Your task to perform on an android device: add a contact Image 0: 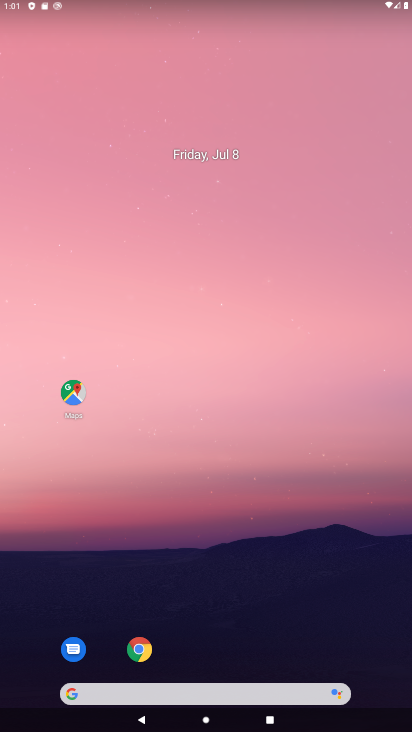
Step 0: drag from (298, 610) to (265, 151)
Your task to perform on an android device: add a contact Image 1: 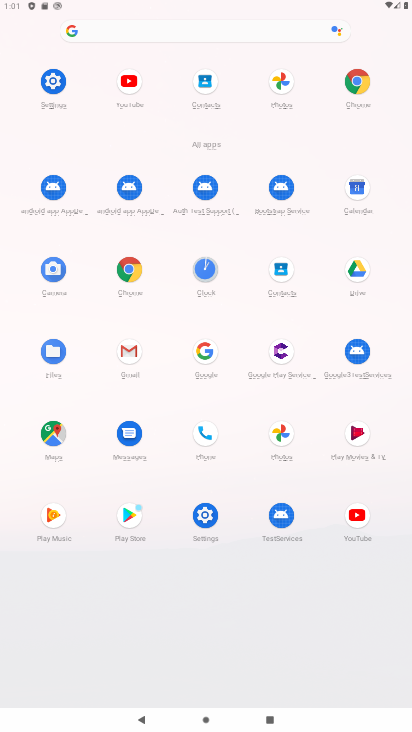
Step 1: click (287, 267)
Your task to perform on an android device: add a contact Image 2: 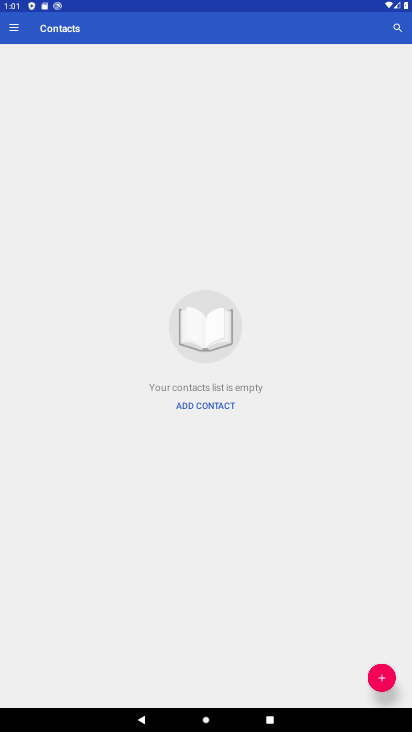
Step 2: click (379, 674)
Your task to perform on an android device: add a contact Image 3: 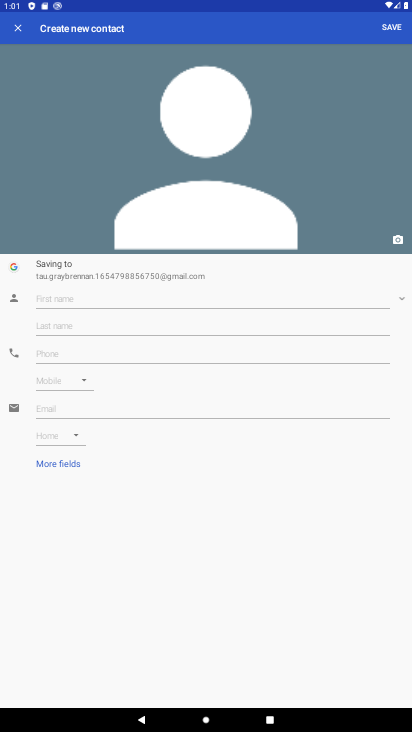
Step 3: click (151, 292)
Your task to perform on an android device: add a contact Image 4: 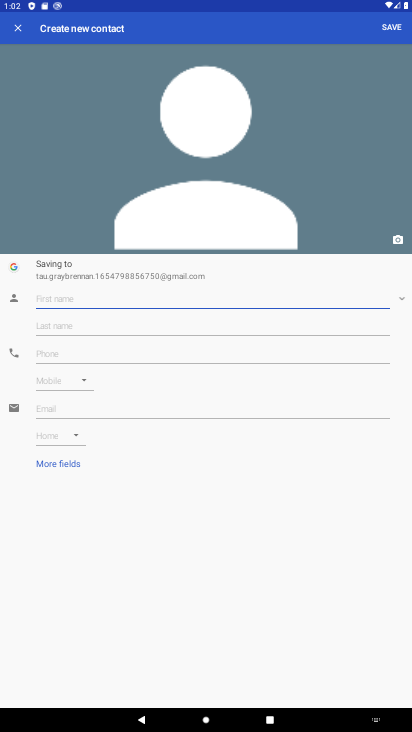
Step 4: type "mahol"
Your task to perform on an android device: add a contact Image 5: 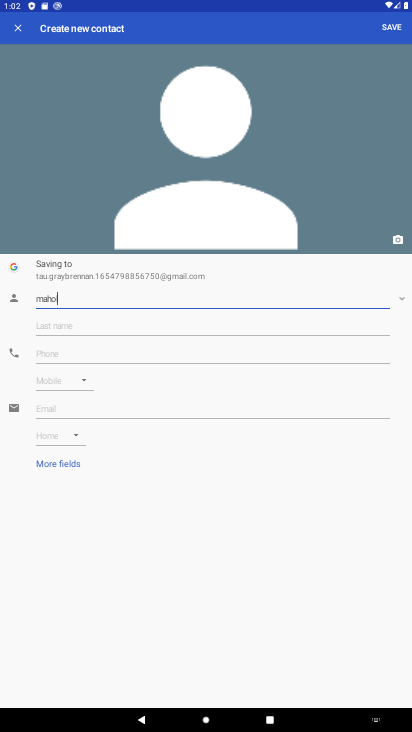
Step 5: click (392, 26)
Your task to perform on an android device: add a contact Image 6: 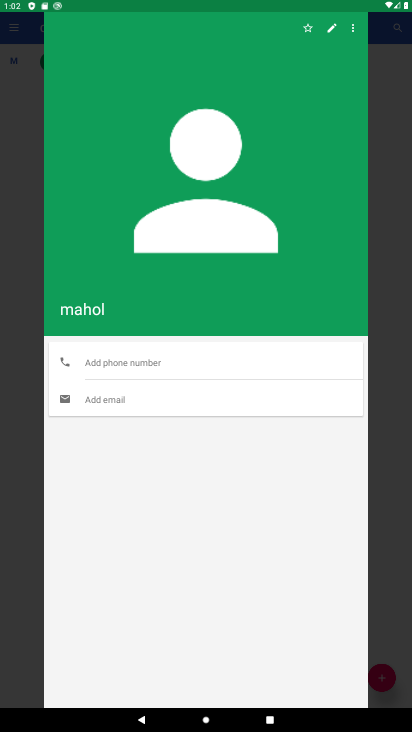
Step 6: task complete